Your task to perform on an android device: delete a single message in the gmail app Image 0: 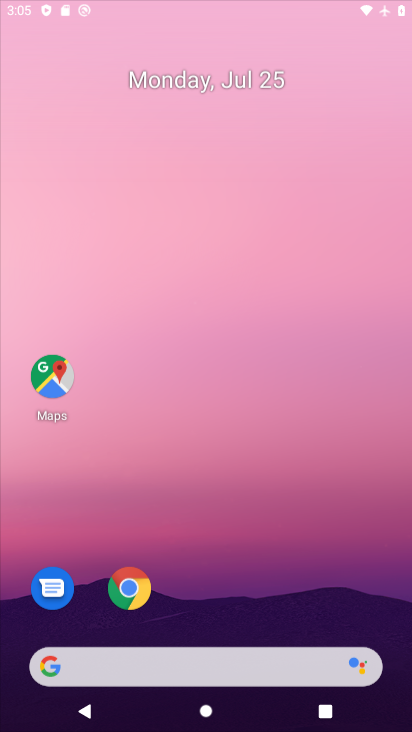
Step 0: click (243, 120)
Your task to perform on an android device: delete a single message in the gmail app Image 1: 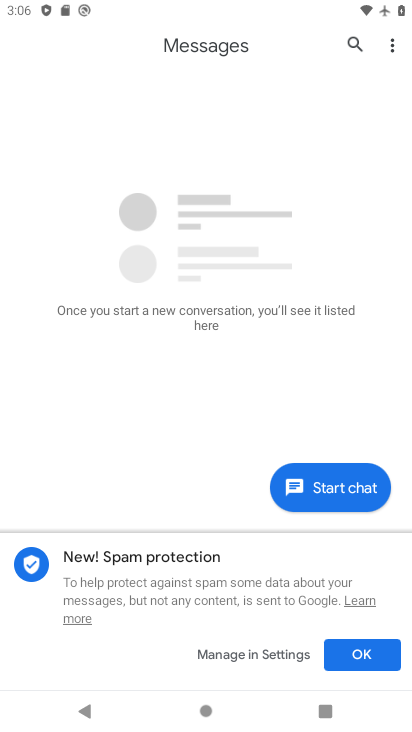
Step 1: press home button
Your task to perform on an android device: delete a single message in the gmail app Image 2: 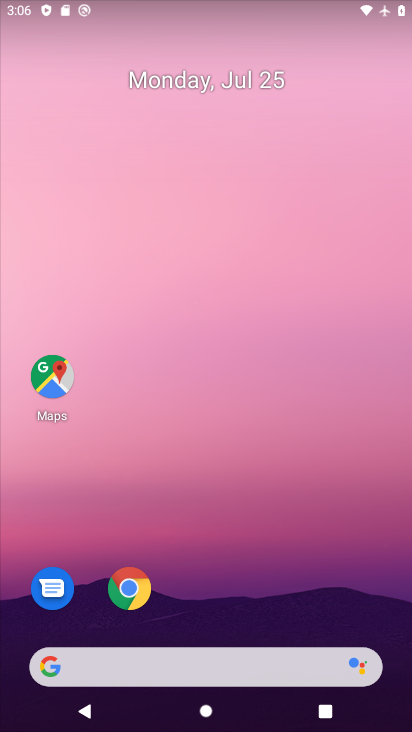
Step 2: drag from (245, 719) to (243, 67)
Your task to perform on an android device: delete a single message in the gmail app Image 3: 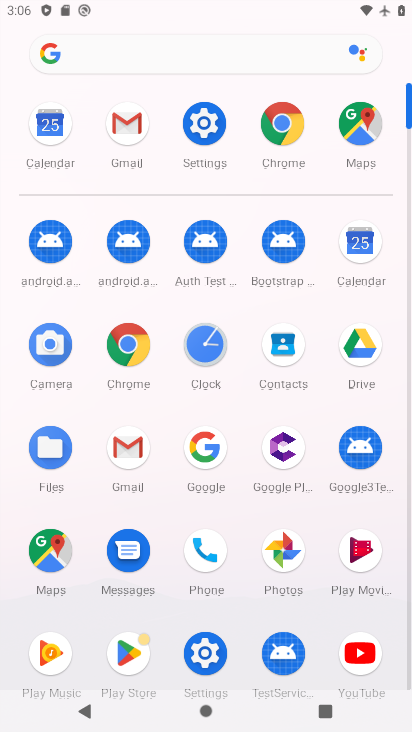
Step 3: click (128, 452)
Your task to perform on an android device: delete a single message in the gmail app Image 4: 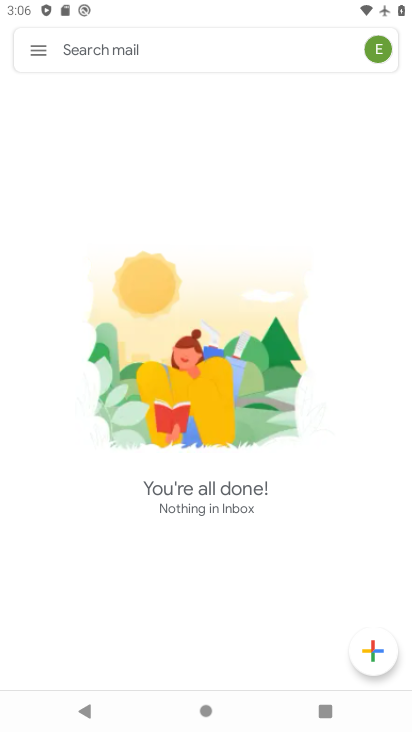
Step 4: click (38, 51)
Your task to perform on an android device: delete a single message in the gmail app Image 5: 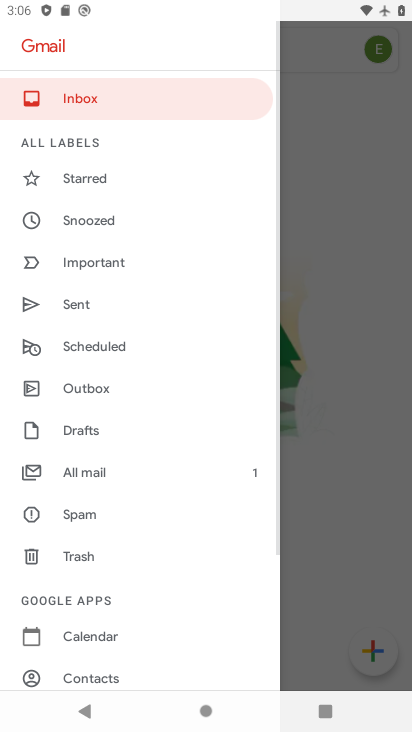
Step 5: drag from (88, 658) to (90, 272)
Your task to perform on an android device: delete a single message in the gmail app Image 6: 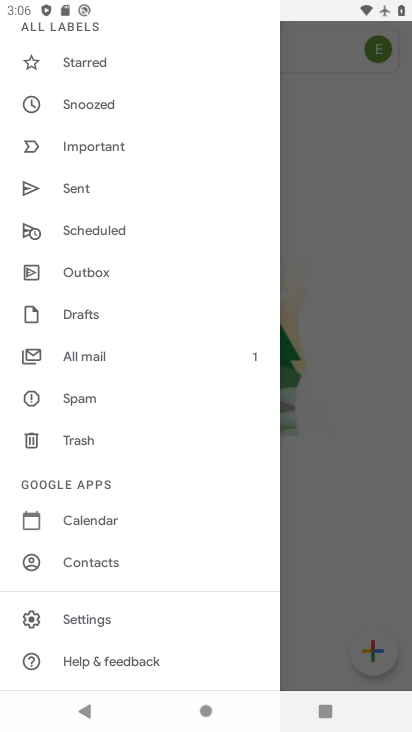
Step 6: drag from (117, 102) to (121, 538)
Your task to perform on an android device: delete a single message in the gmail app Image 7: 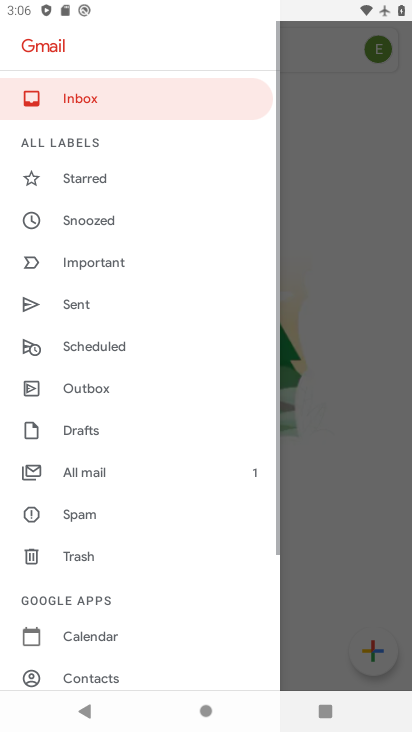
Step 7: click (84, 96)
Your task to perform on an android device: delete a single message in the gmail app Image 8: 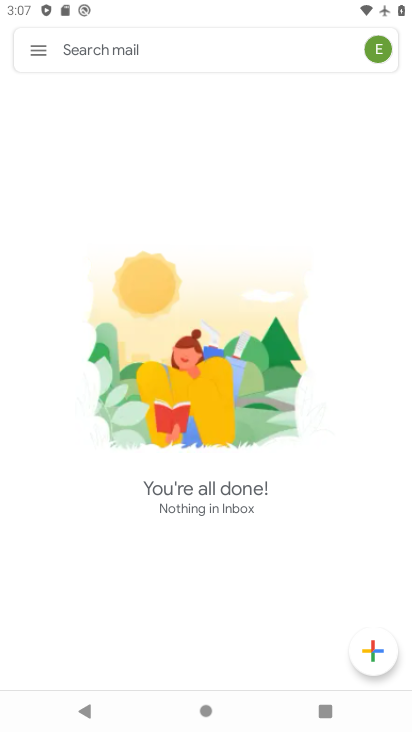
Step 8: click (29, 51)
Your task to perform on an android device: delete a single message in the gmail app Image 9: 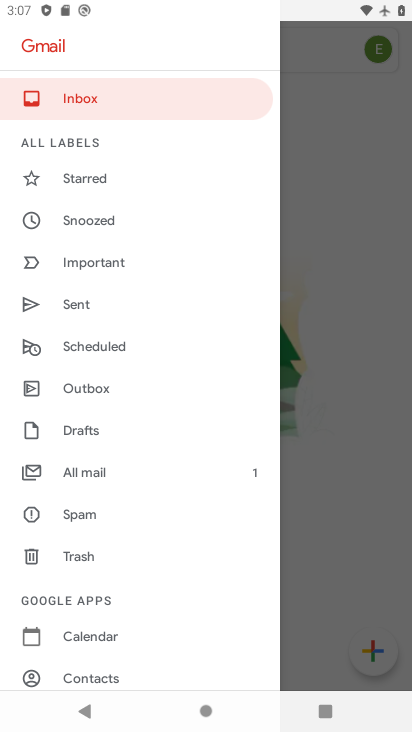
Step 9: drag from (85, 610) to (58, 143)
Your task to perform on an android device: delete a single message in the gmail app Image 10: 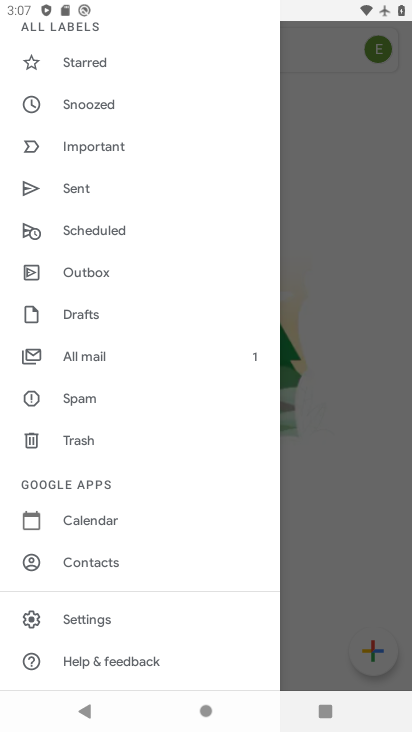
Step 10: drag from (133, 148) to (146, 641)
Your task to perform on an android device: delete a single message in the gmail app Image 11: 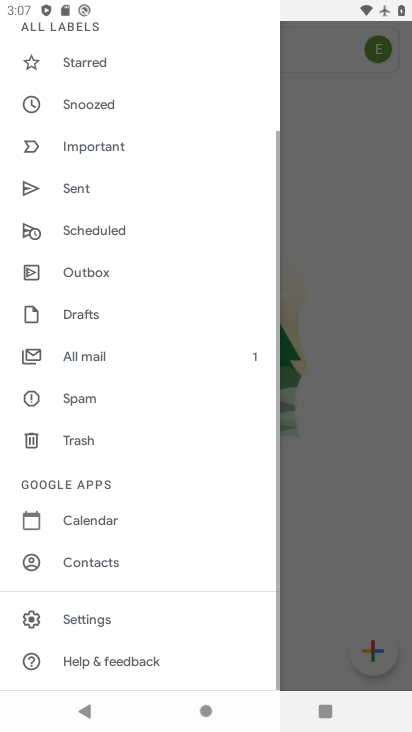
Step 11: drag from (80, 112) to (87, 509)
Your task to perform on an android device: delete a single message in the gmail app Image 12: 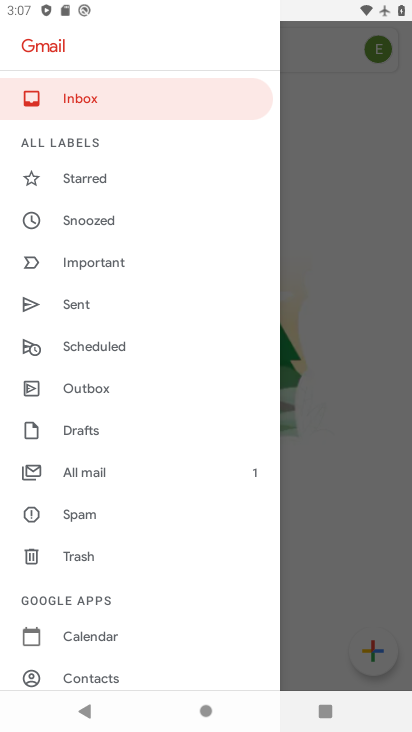
Step 12: click (83, 95)
Your task to perform on an android device: delete a single message in the gmail app Image 13: 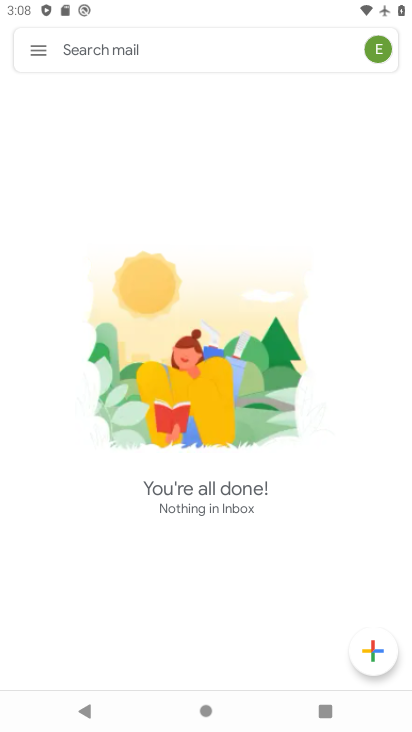
Step 13: task complete